Your task to perform on an android device: Open ESPN.com Image 0: 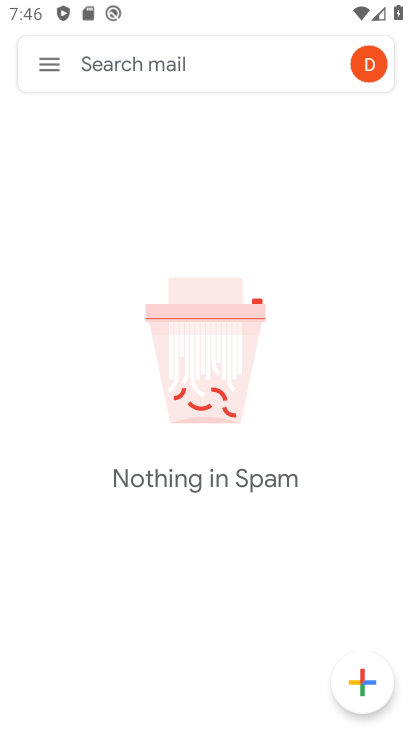
Step 0: press home button
Your task to perform on an android device: Open ESPN.com Image 1: 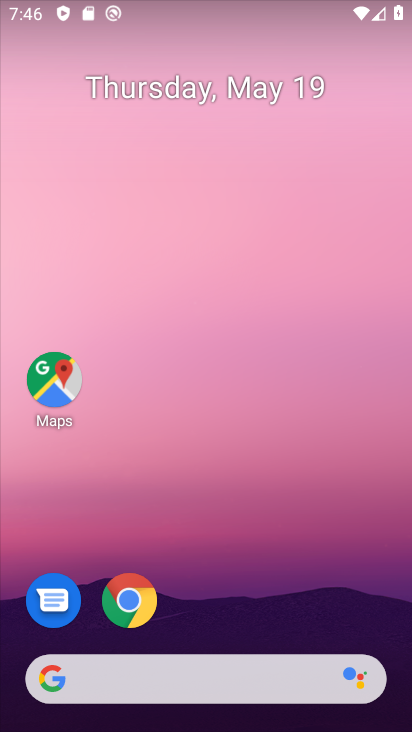
Step 1: click (122, 605)
Your task to perform on an android device: Open ESPN.com Image 2: 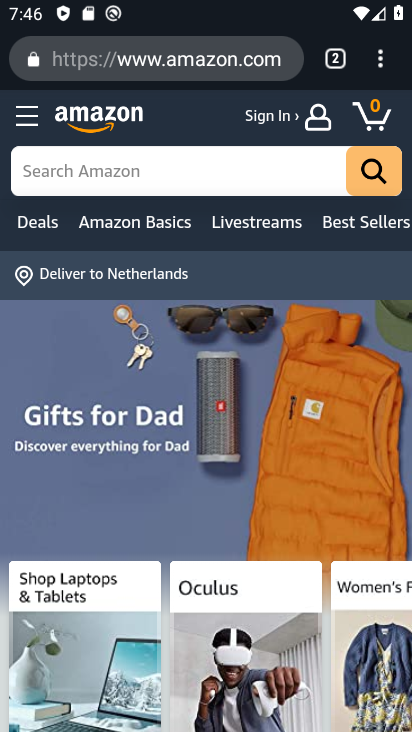
Step 2: click (128, 66)
Your task to perform on an android device: Open ESPN.com Image 3: 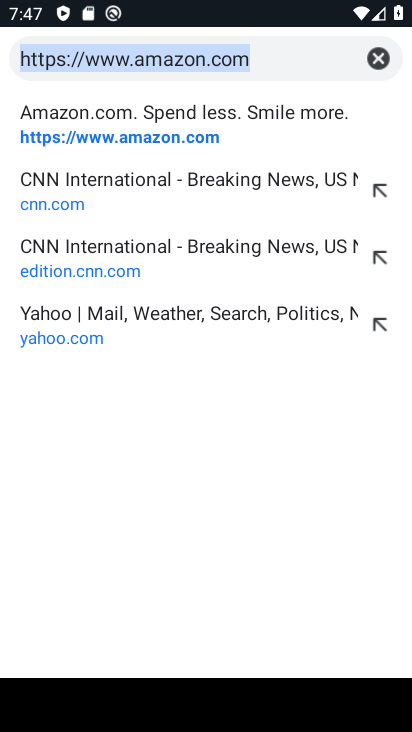
Step 3: click (381, 52)
Your task to perform on an android device: Open ESPN.com Image 4: 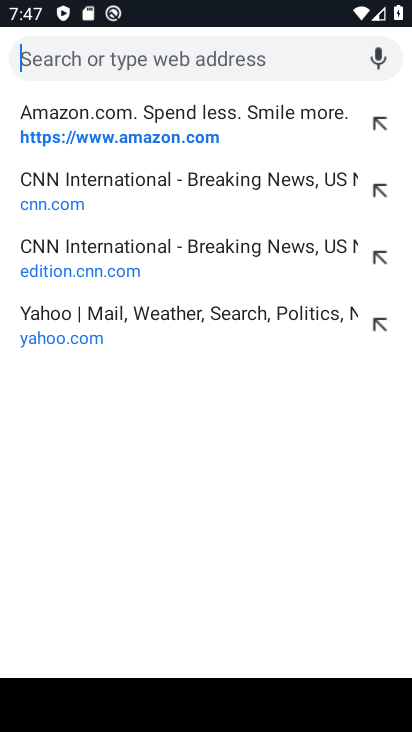
Step 4: type "espn.com"
Your task to perform on an android device: Open ESPN.com Image 5: 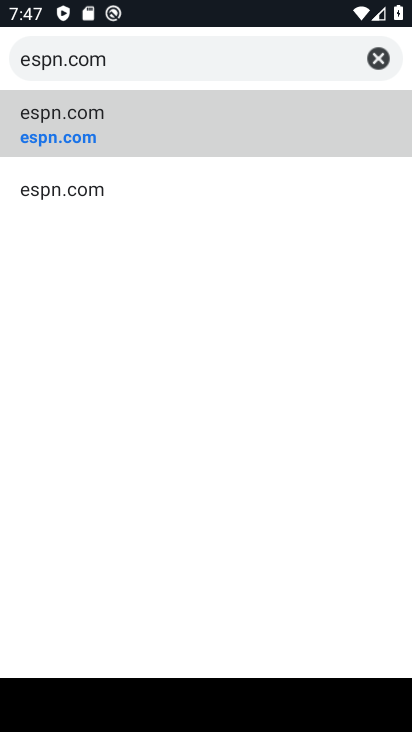
Step 5: click (46, 113)
Your task to perform on an android device: Open ESPN.com Image 6: 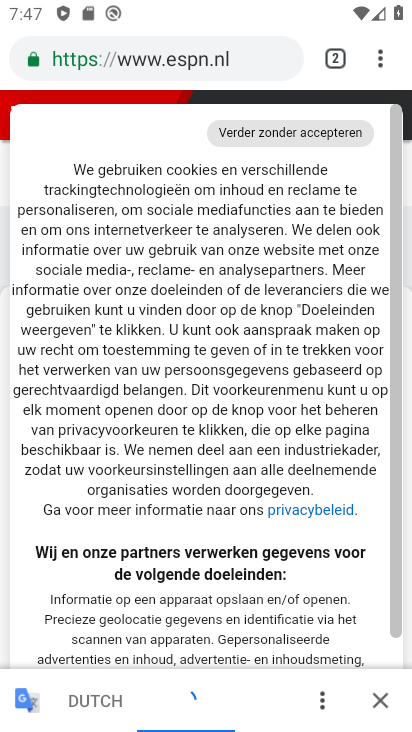
Step 6: task complete